Your task to perform on an android device: delete a single message in the gmail app Image 0: 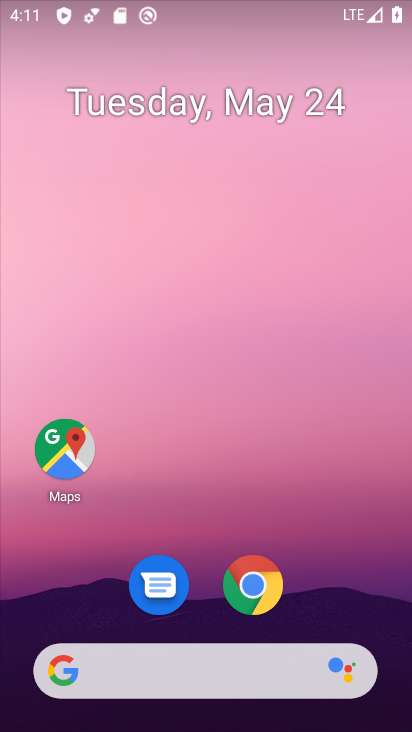
Step 0: drag from (325, 577) to (351, 47)
Your task to perform on an android device: delete a single message in the gmail app Image 1: 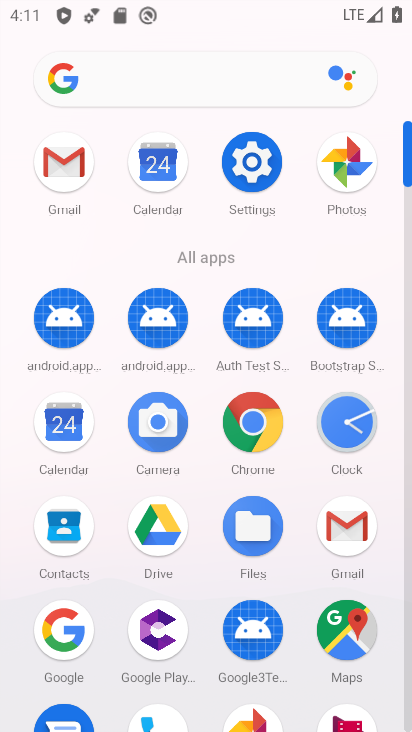
Step 1: click (63, 177)
Your task to perform on an android device: delete a single message in the gmail app Image 2: 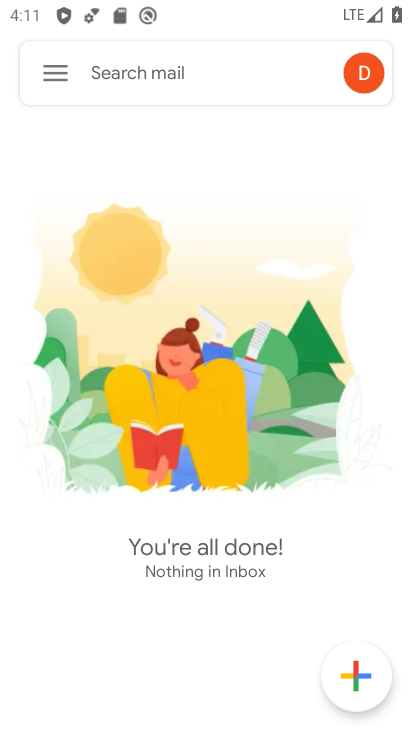
Step 2: click (44, 75)
Your task to perform on an android device: delete a single message in the gmail app Image 3: 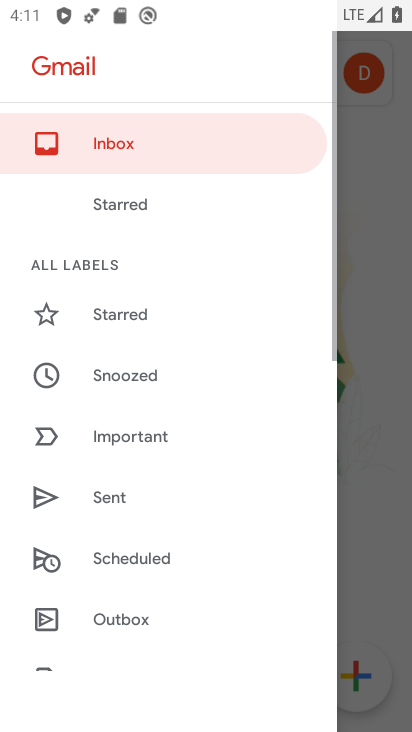
Step 3: drag from (155, 502) to (173, 207)
Your task to perform on an android device: delete a single message in the gmail app Image 4: 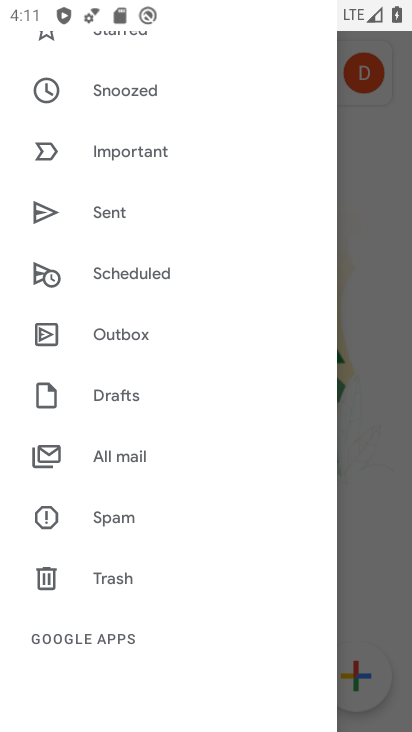
Step 4: click (134, 450)
Your task to perform on an android device: delete a single message in the gmail app Image 5: 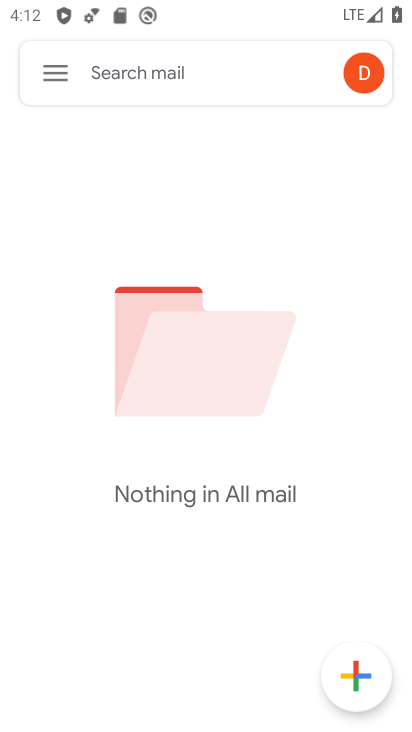
Step 5: task complete